Your task to perform on an android device: When is my next meeting? Image 0: 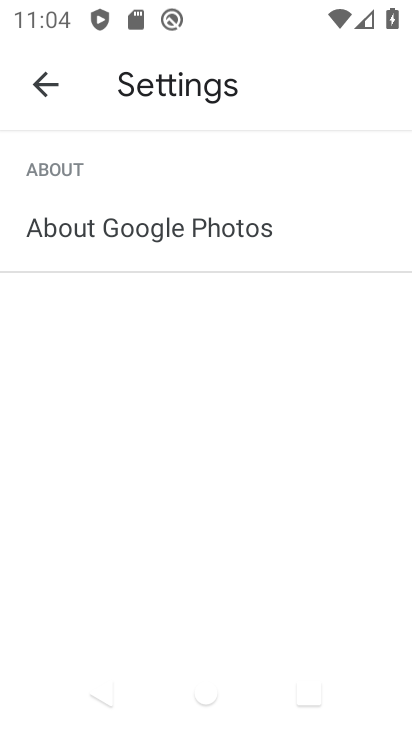
Step 0: press home button
Your task to perform on an android device: When is my next meeting? Image 1: 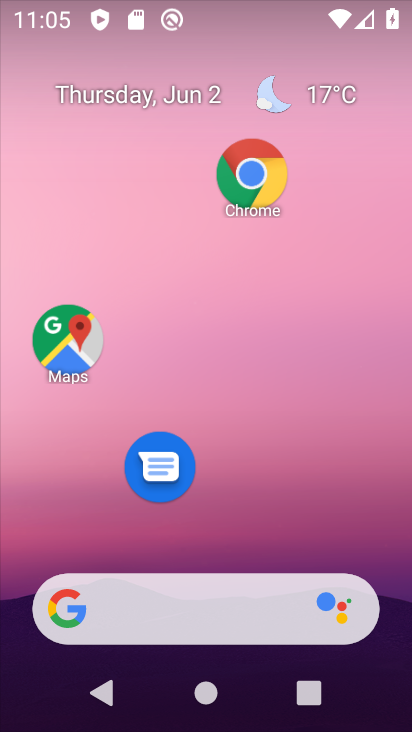
Step 1: drag from (51, 552) to (36, 104)
Your task to perform on an android device: When is my next meeting? Image 2: 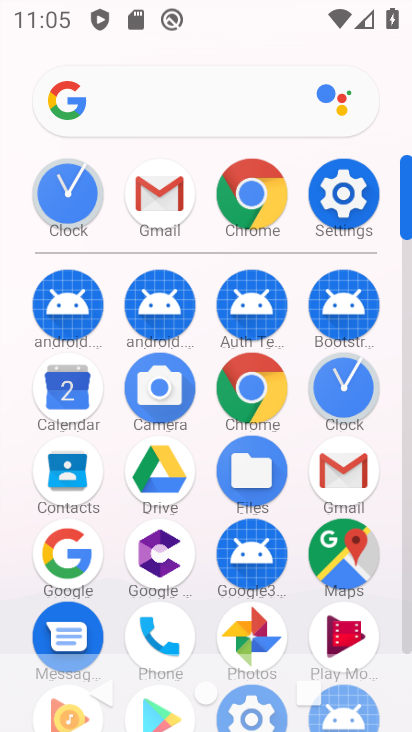
Step 2: click (55, 394)
Your task to perform on an android device: When is my next meeting? Image 3: 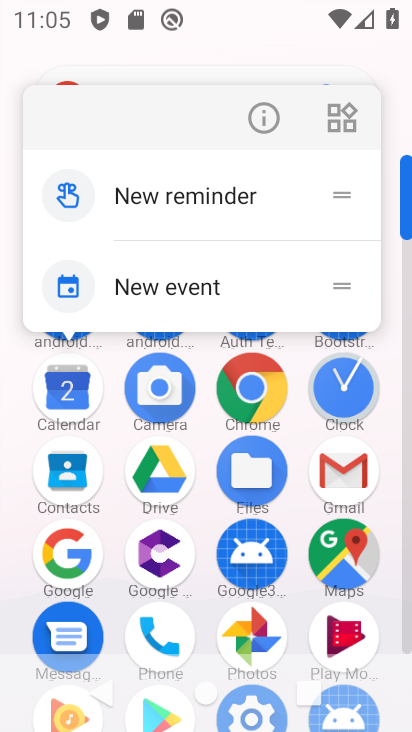
Step 3: click (62, 373)
Your task to perform on an android device: When is my next meeting? Image 4: 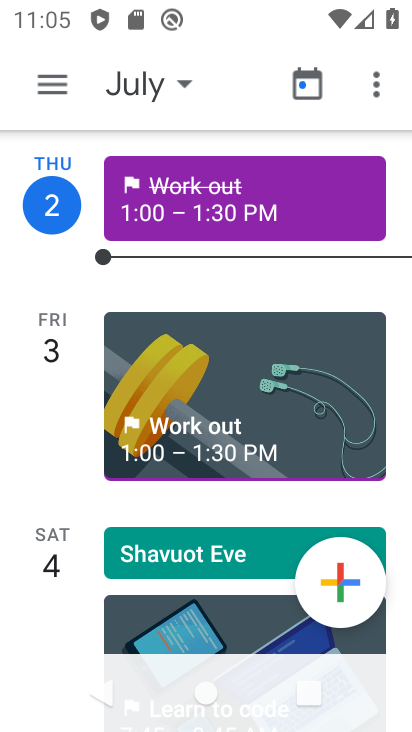
Step 4: click (36, 85)
Your task to perform on an android device: When is my next meeting? Image 5: 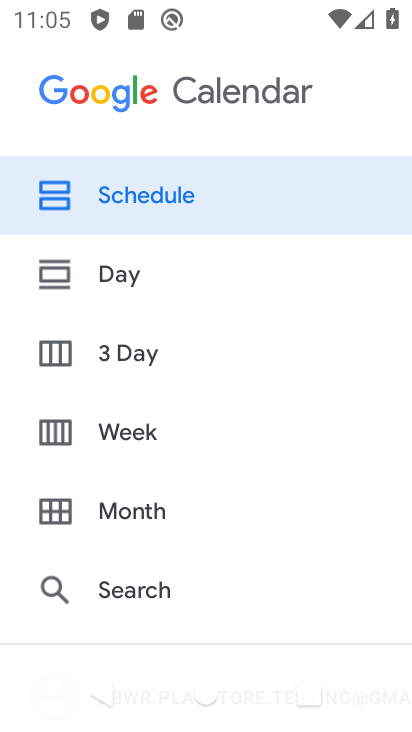
Step 5: click (116, 191)
Your task to perform on an android device: When is my next meeting? Image 6: 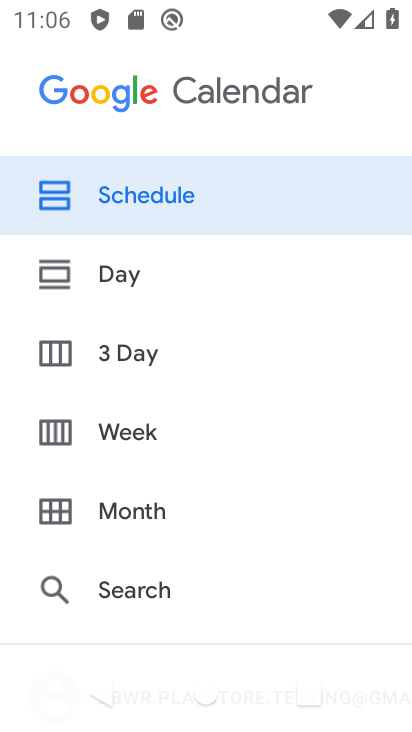
Step 6: task complete